Your task to perform on an android device: Open the calendar and show me this week's events? Image 0: 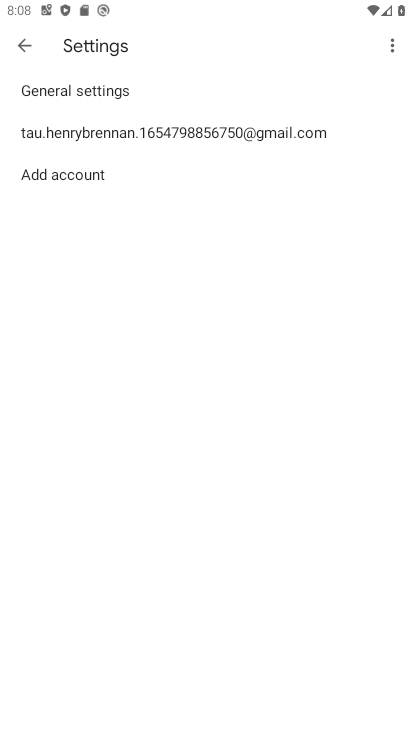
Step 0: press home button
Your task to perform on an android device: Open the calendar and show me this week's events? Image 1: 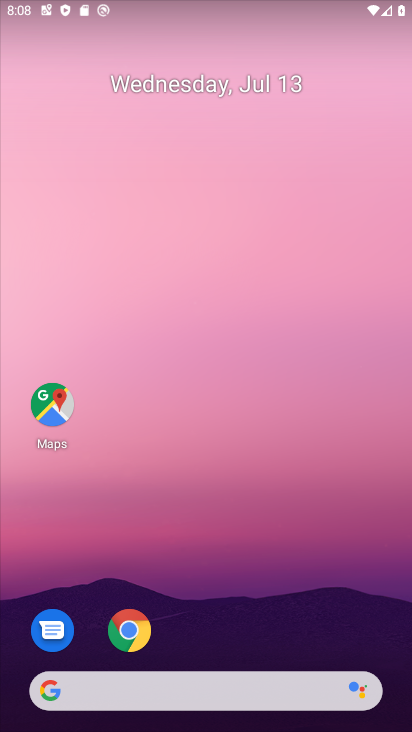
Step 1: drag from (359, 617) to (366, 71)
Your task to perform on an android device: Open the calendar and show me this week's events? Image 2: 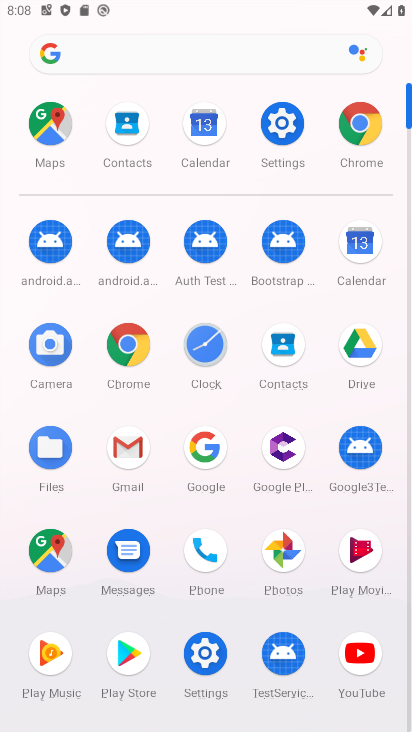
Step 2: click (360, 262)
Your task to perform on an android device: Open the calendar and show me this week's events? Image 3: 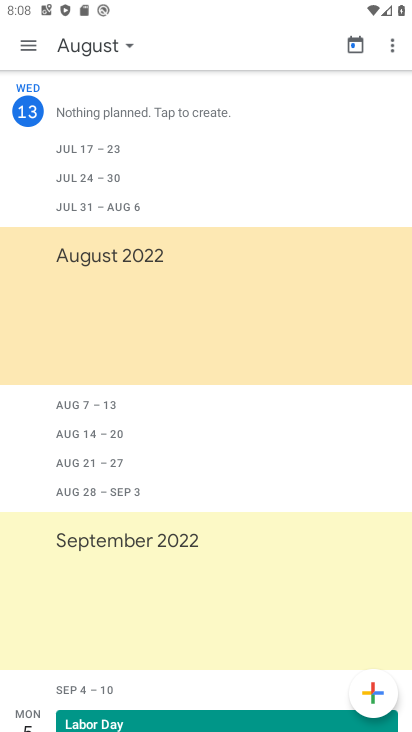
Step 3: task complete